Your task to perform on an android device: open chrome privacy settings Image 0: 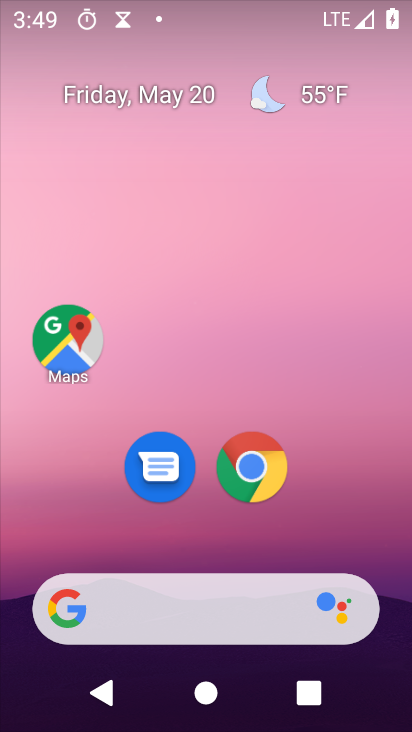
Step 0: click (240, 459)
Your task to perform on an android device: open chrome privacy settings Image 1: 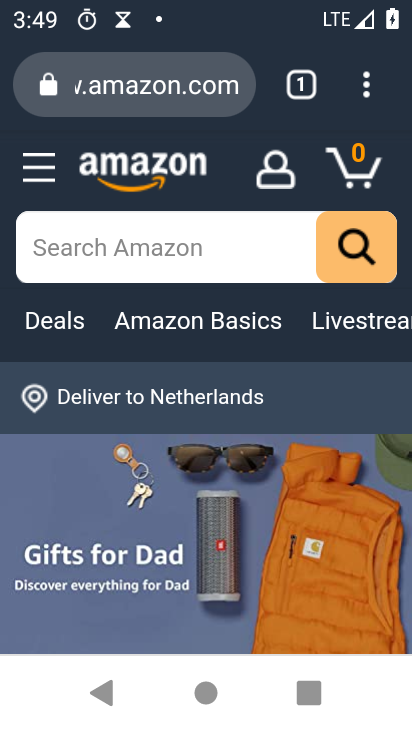
Step 1: click (368, 91)
Your task to perform on an android device: open chrome privacy settings Image 2: 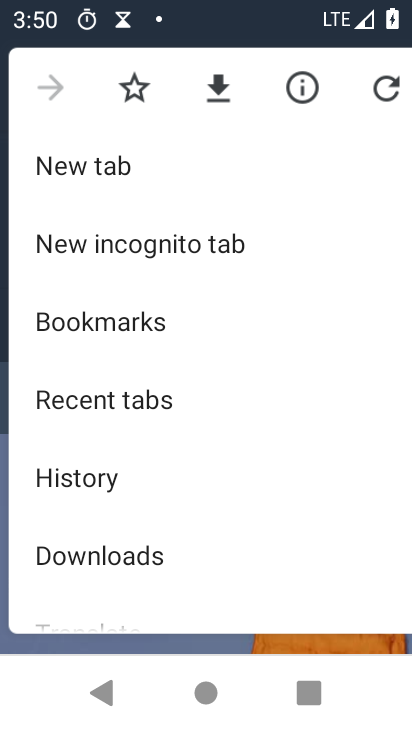
Step 2: drag from (190, 534) to (153, 104)
Your task to perform on an android device: open chrome privacy settings Image 3: 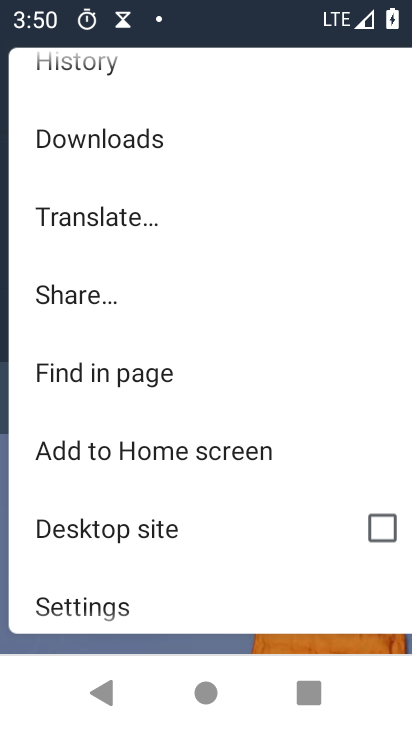
Step 3: click (115, 594)
Your task to perform on an android device: open chrome privacy settings Image 4: 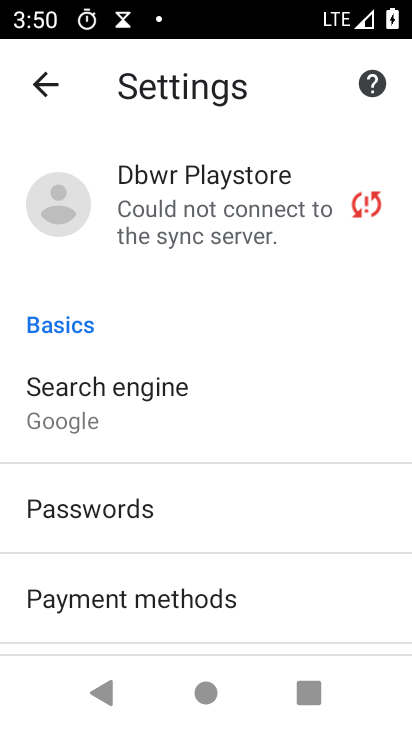
Step 4: drag from (150, 568) to (140, 139)
Your task to perform on an android device: open chrome privacy settings Image 5: 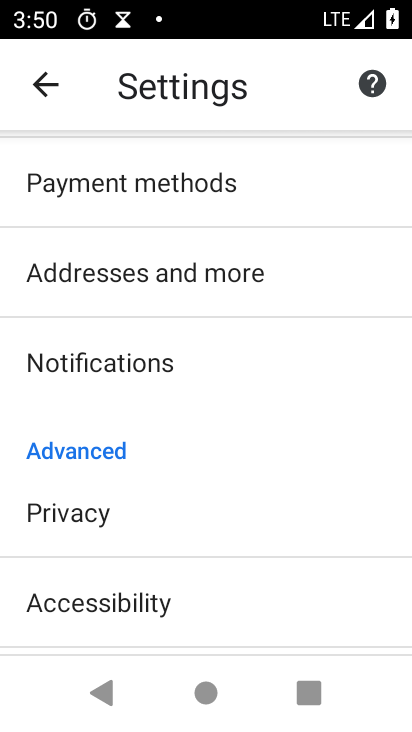
Step 5: click (148, 530)
Your task to perform on an android device: open chrome privacy settings Image 6: 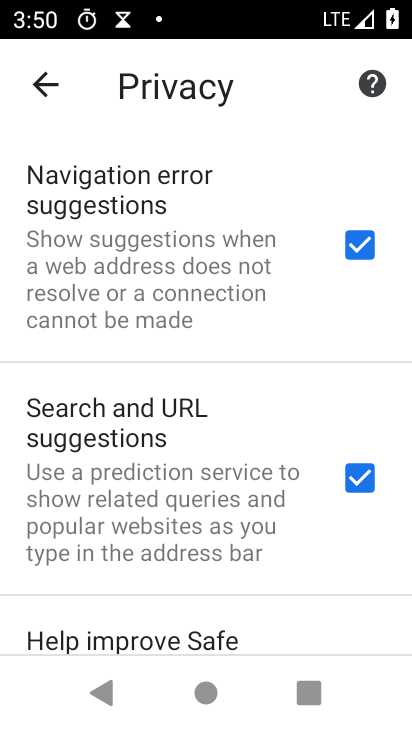
Step 6: task complete